Your task to perform on an android device: Go to CNN.com Image 0: 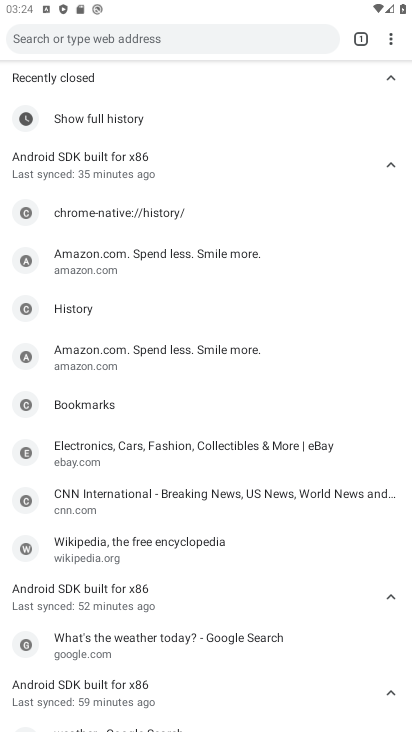
Step 0: click (156, 38)
Your task to perform on an android device: Go to CNN.com Image 1: 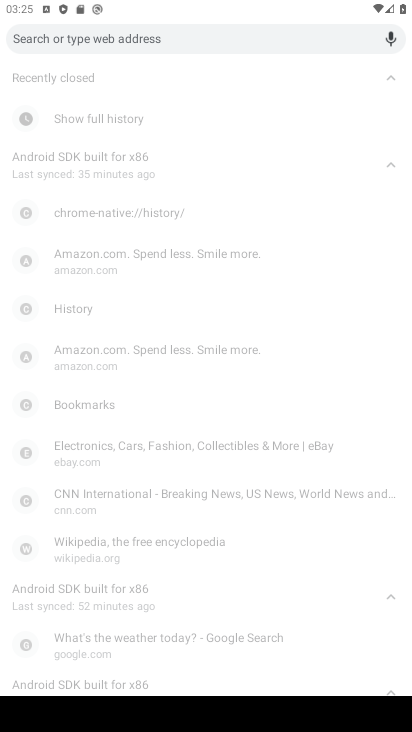
Step 1: type "cnn"
Your task to perform on an android device: Go to CNN.com Image 2: 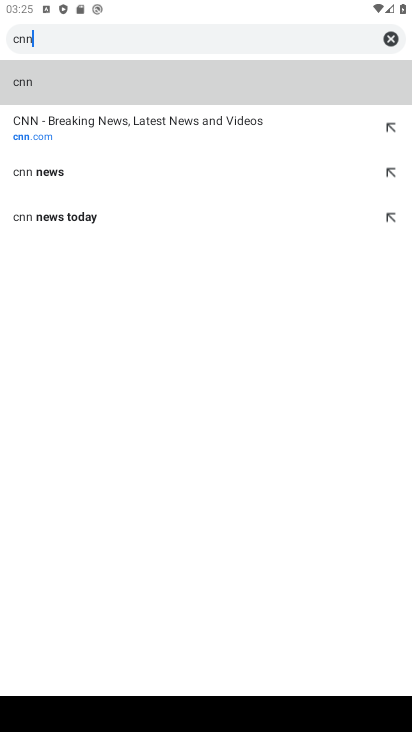
Step 2: click (154, 123)
Your task to perform on an android device: Go to CNN.com Image 3: 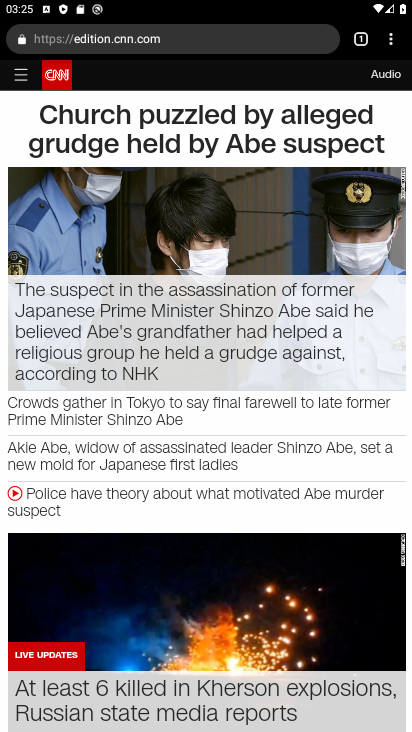
Step 3: task complete